Your task to perform on an android device: Open Youtube and go to "Your channel" Image 0: 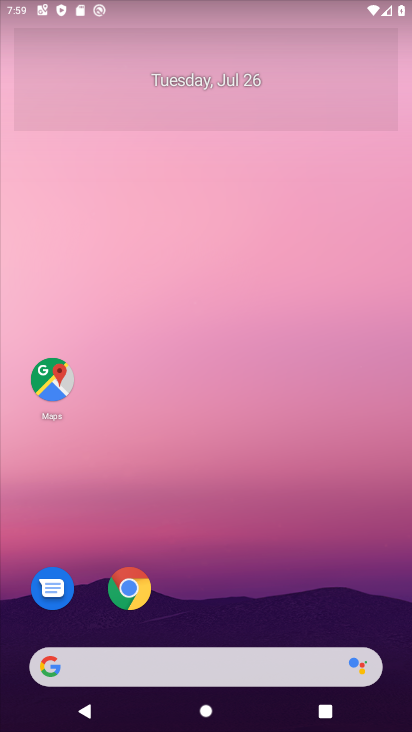
Step 0: drag from (298, 556) to (302, 230)
Your task to perform on an android device: Open Youtube and go to "Your channel" Image 1: 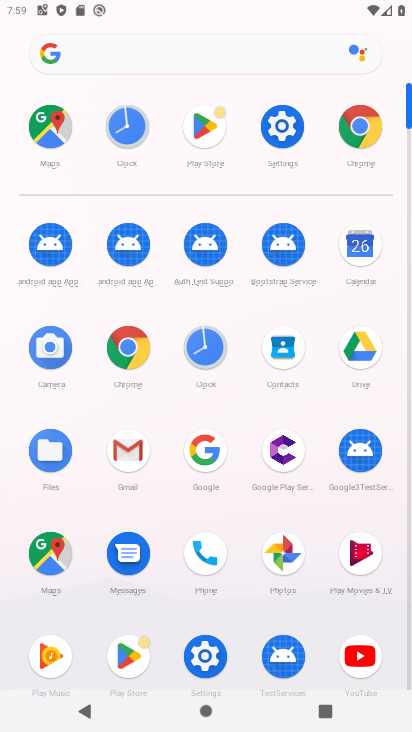
Step 1: click (352, 659)
Your task to perform on an android device: Open Youtube and go to "Your channel" Image 2: 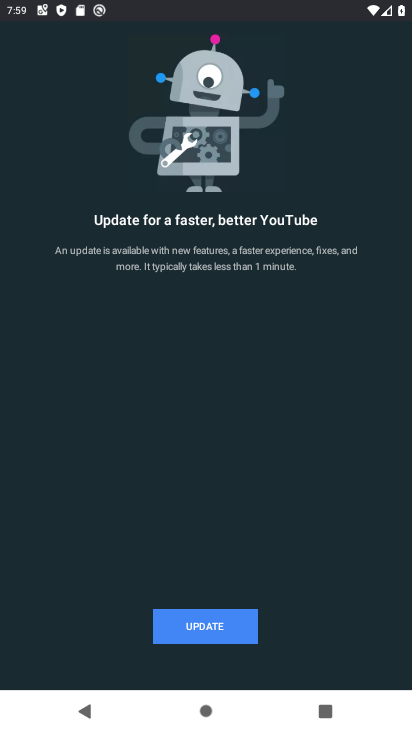
Step 2: task complete